Your task to perform on an android device: Open Android settings Image 0: 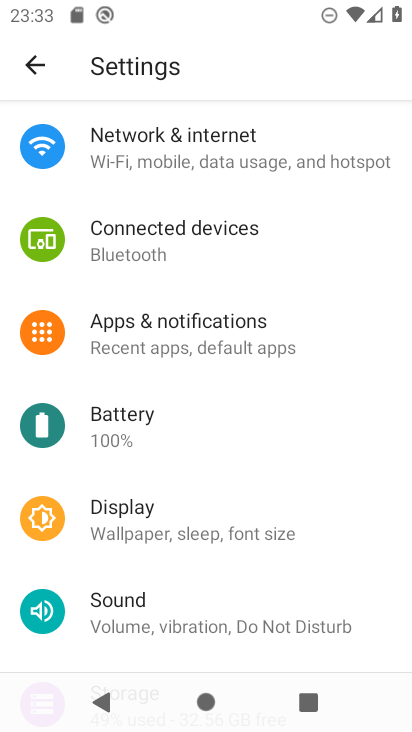
Step 0: drag from (200, 604) to (327, 162)
Your task to perform on an android device: Open Android settings Image 1: 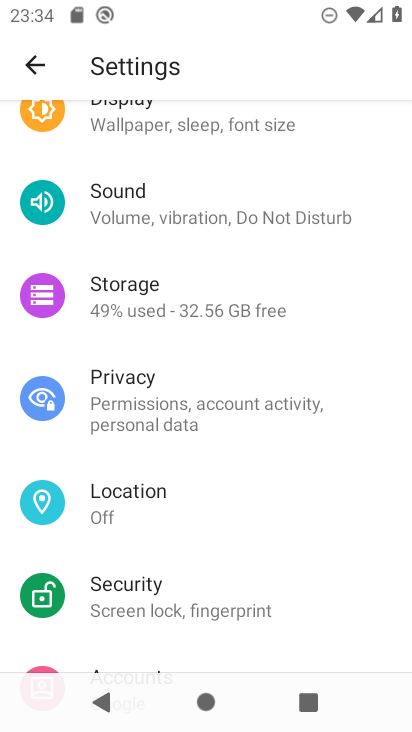
Step 1: task complete